Your task to perform on an android device: change the clock display to show seconds Image 0: 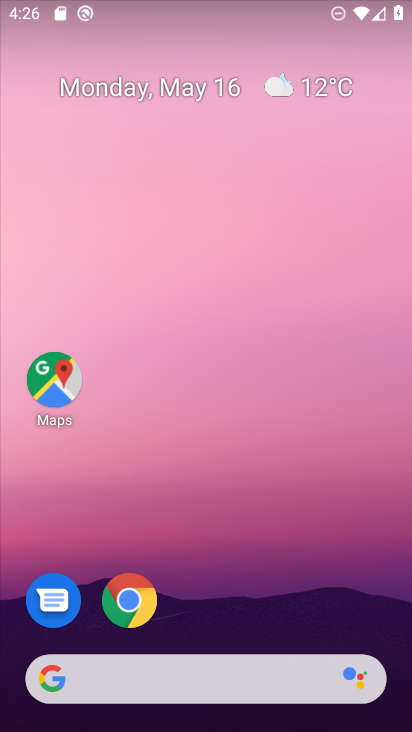
Step 0: drag from (306, 580) to (301, 59)
Your task to perform on an android device: change the clock display to show seconds Image 1: 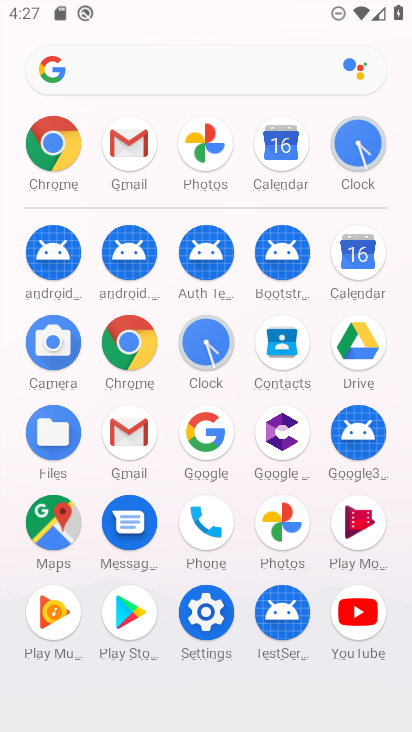
Step 1: click (197, 340)
Your task to perform on an android device: change the clock display to show seconds Image 2: 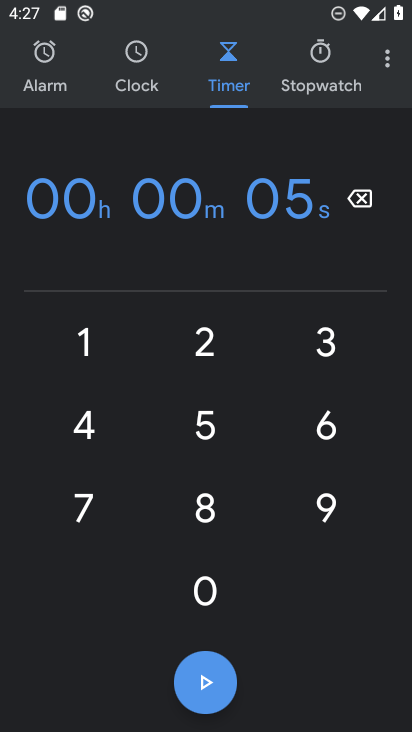
Step 2: drag from (385, 56) to (290, 119)
Your task to perform on an android device: change the clock display to show seconds Image 3: 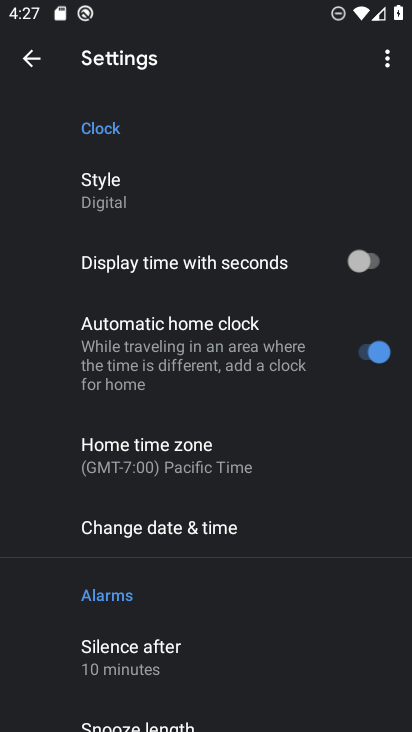
Step 3: drag from (282, 577) to (242, 575)
Your task to perform on an android device: change the clock display to show seconds Image 4: 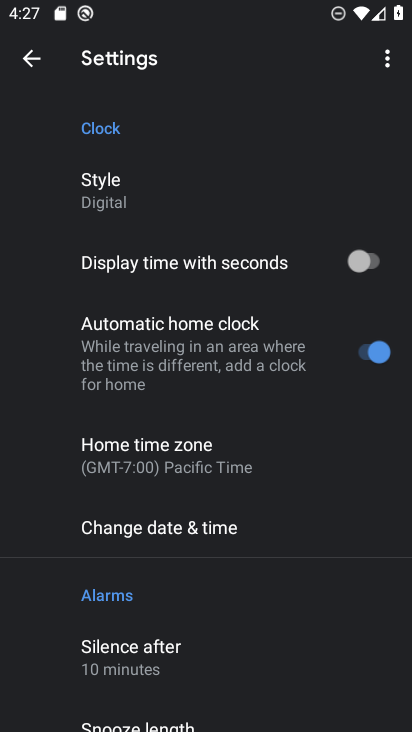
Step 4: click (364, 252)
Your task to perform on an android device: change the clock display to show seconds Image 5: 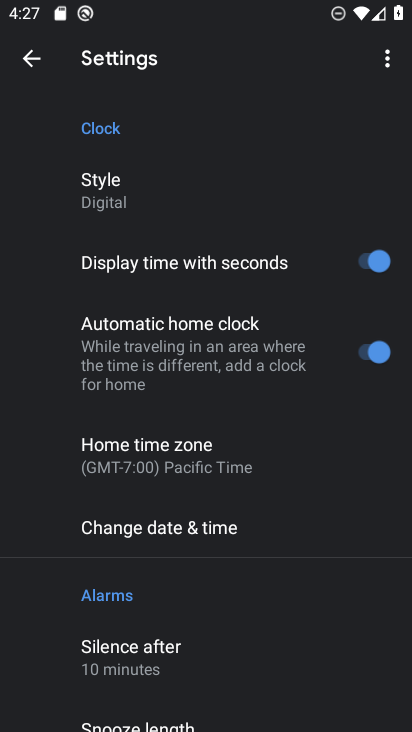
Step 5: task complete